Your task to perform on an android device: Check the weather Image 0: 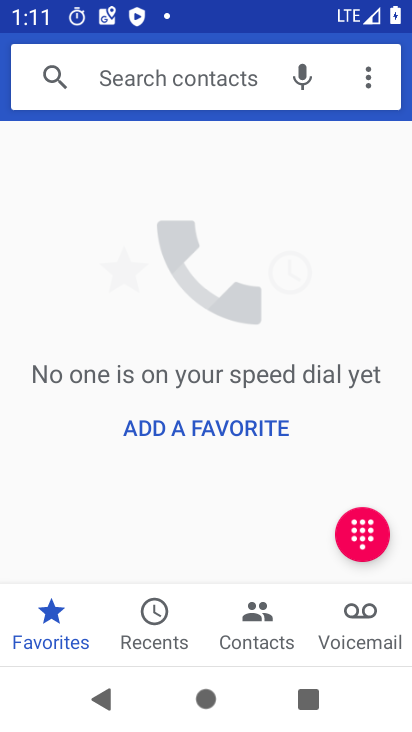
Step 0: press home button
Your task to perform on an android device: Check the weather Image 1: 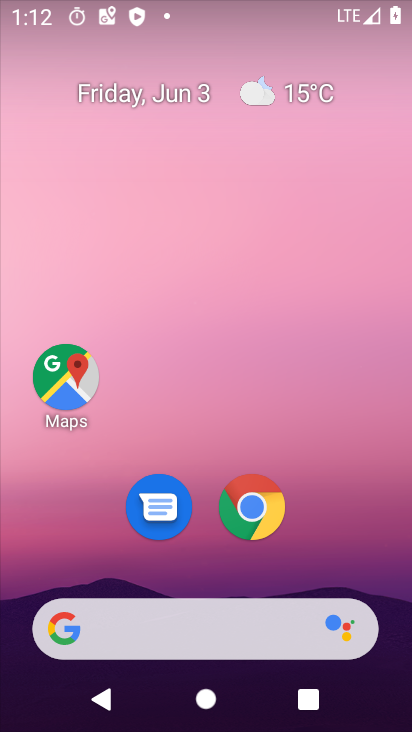
Step 1: drag from (406, 571) to (368, 47)
Your task to perform on an android device: Check the weather Image 2: 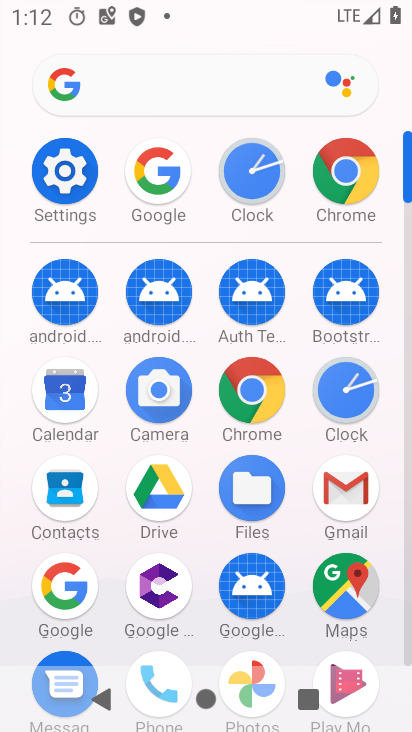
Step 2: click (147, 164)
Your task to perform on an android device: Check the weather Image 3: 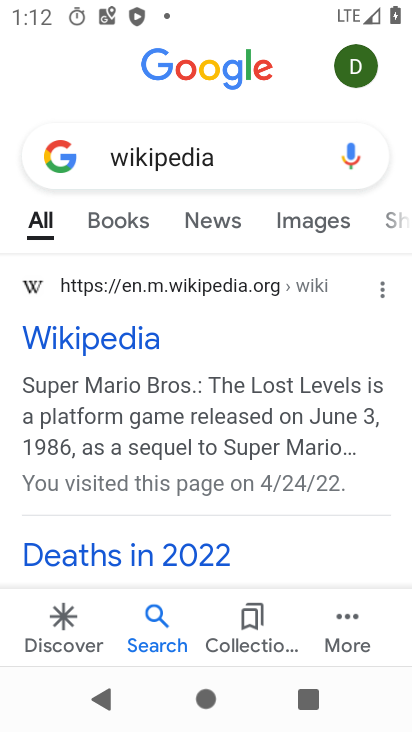
Step 3: press back button
Your task to perform on an android device: Check the weather Image 4: 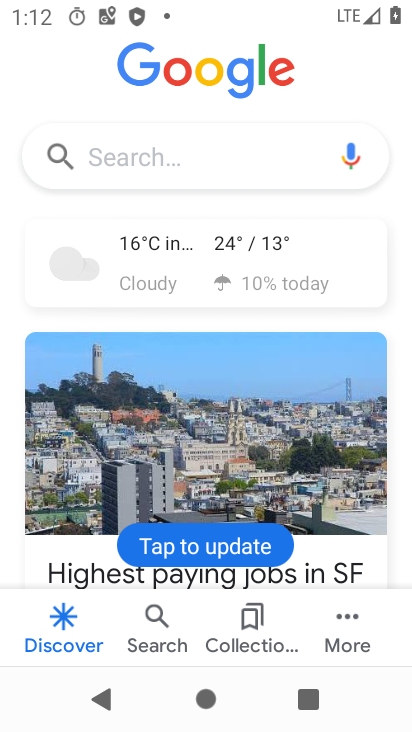
Step 4: click (148, 156)
Your task to perform on an android device: Check the weather Image 5: 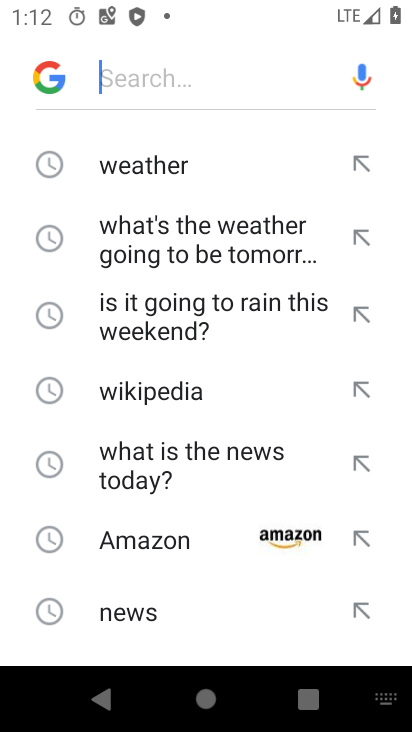
Step 5: click (146, 156)
Your task to perform on an android device: Check the weather Image 6: 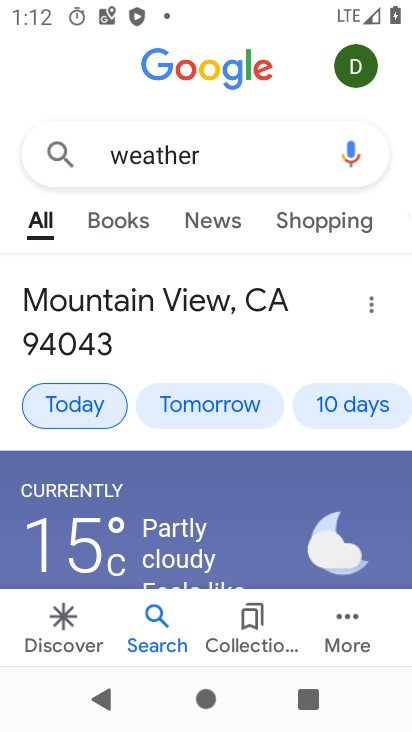
Step 6: task complete